Your task to perform on an android device: move a message to another label in the gmail app Image 0: 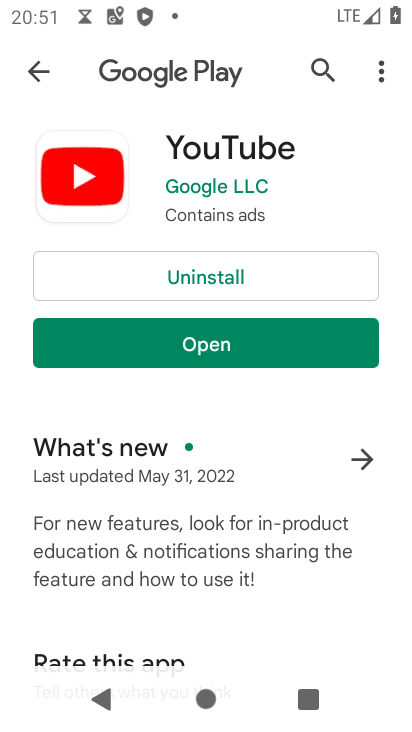
Step 0: press home button
Your task to perform on an android device: move a message to another label in the gmail app Image 1: 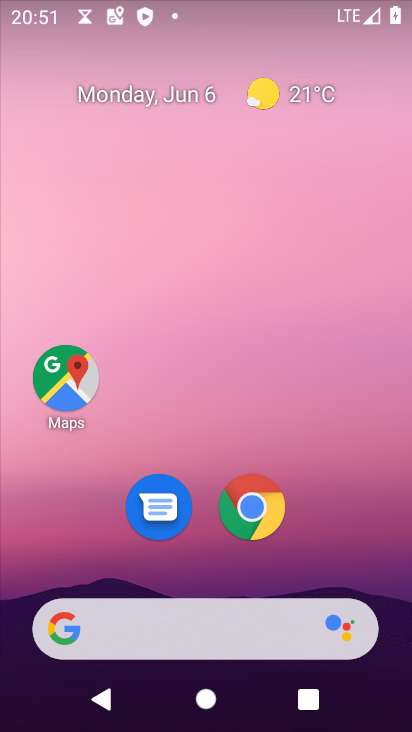
Step 1: drag from (200, 583) to (154, 93)
Your task to perform on an android device: move a message to another label in the gmail app Image 2: 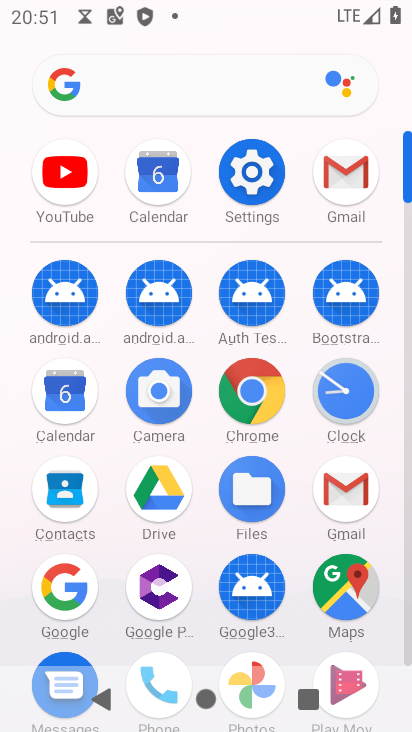
Step 2: click (346, 176)
Your task to perform on an android device: move a message to another label in the gmail app Image 3: 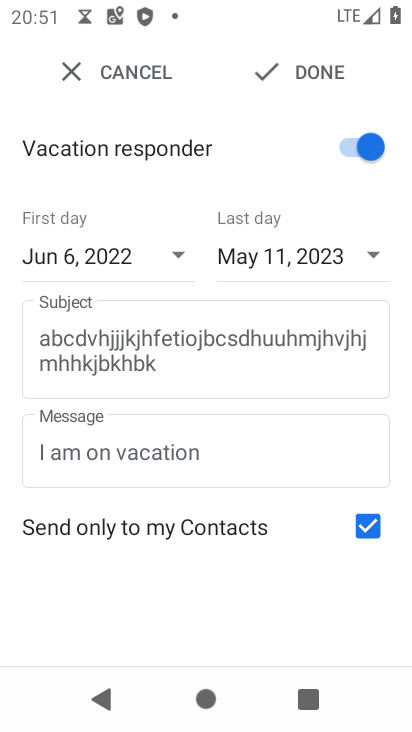
Step 3: press back button
Your task to perform on an android device: move a message to another label in the gmail app Image 4: 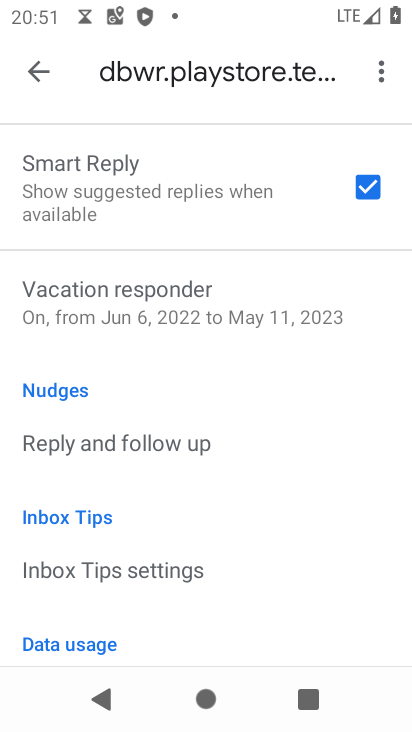
Step 4: click (27, 74)
Your task to perform on an android device: move a message to another label in the gmail app Image 5: 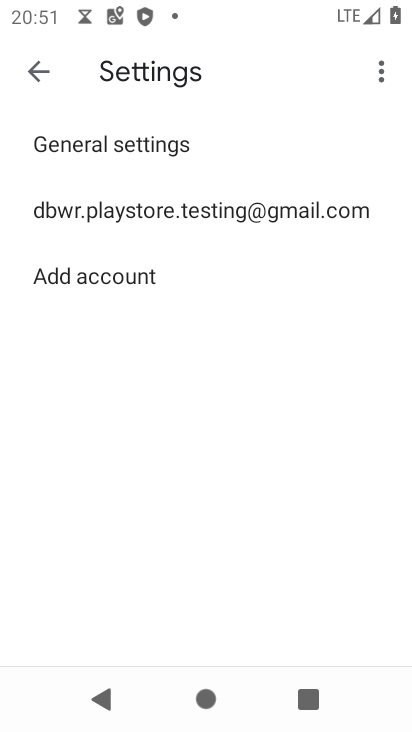
Step 5: click (37, 74)
Your task to perform on an android device: move a message to another label in the gmail app Image 6: 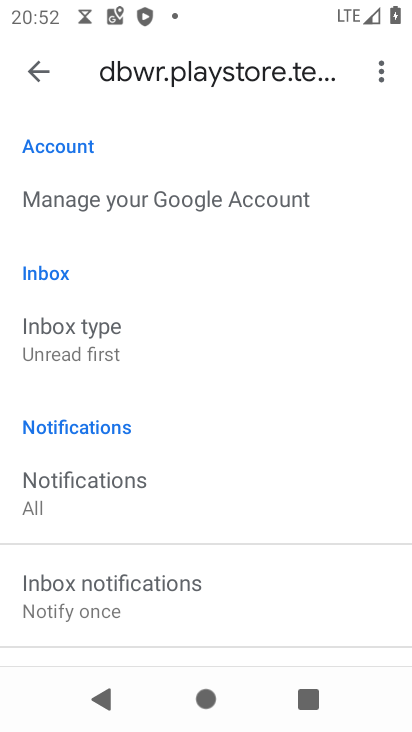
Step 6: click (34, 76)
Your task to perform on an android device: move a message to another label in the gmail app Image 7: 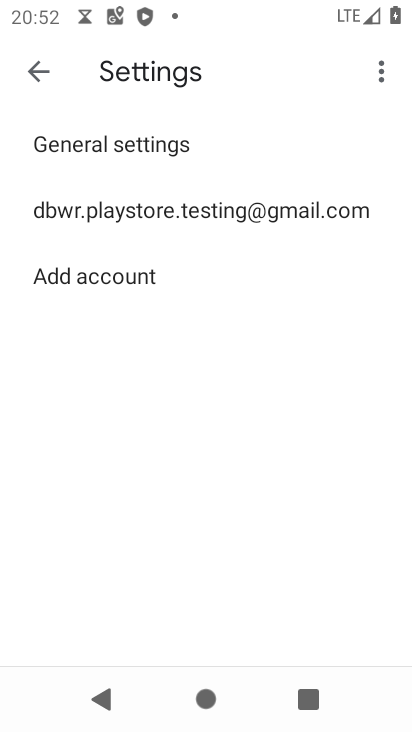
Step 7: click (38, 78)
Your task to perform on an android device: move a message to another label in the gmail app Image 8: 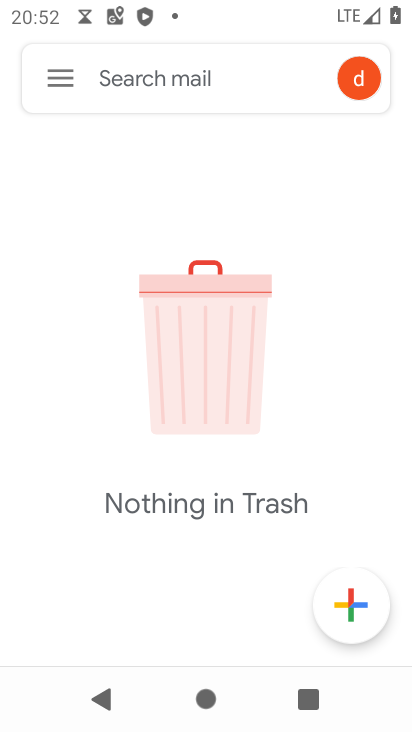
Step 8: click (61, 79)
Your task to perform on an android device: move a message to another label in the gmail app Image 9: 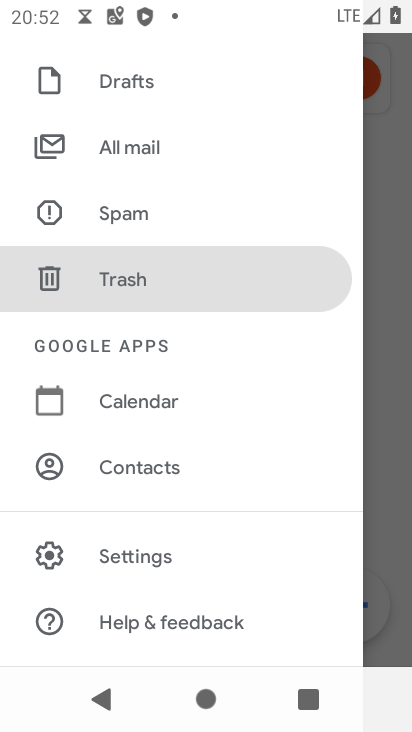
Step 9: click (160, 154)
Your task to perform on an android device: move a message to another label in the gmail app Image 10: 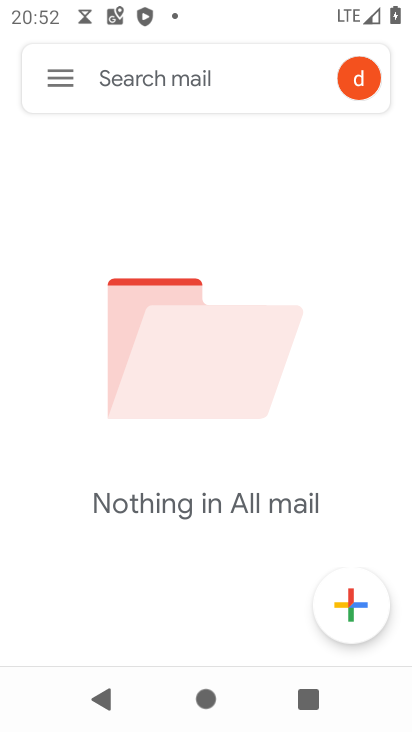
Step 10: task complete